Your task to perform on an android device: install app "DoorDash - Dasher" Image 0: 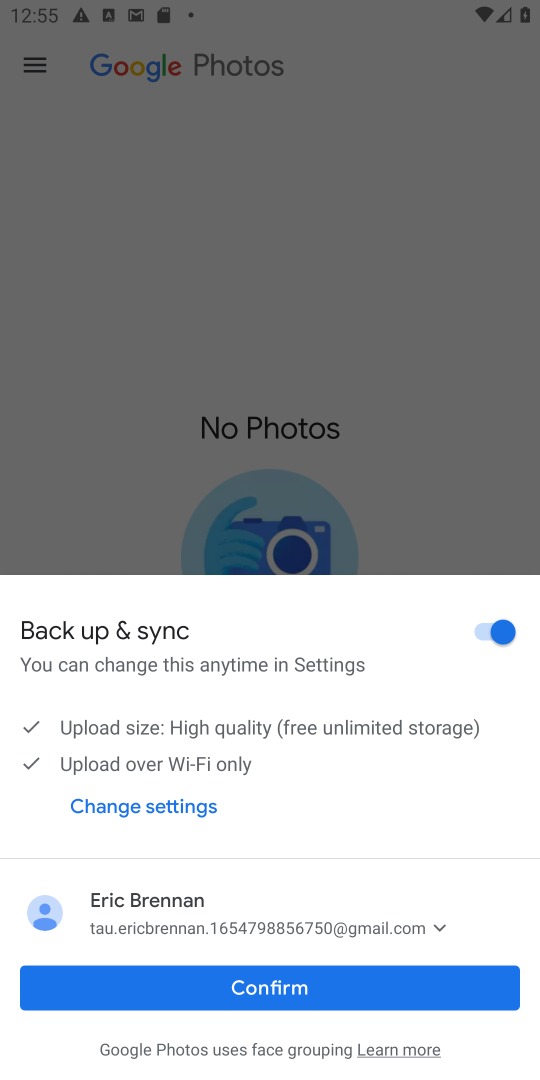
Step 0: press home button
Your task to perform on an android device: install app "DoorDash - Dasher" Image 1: 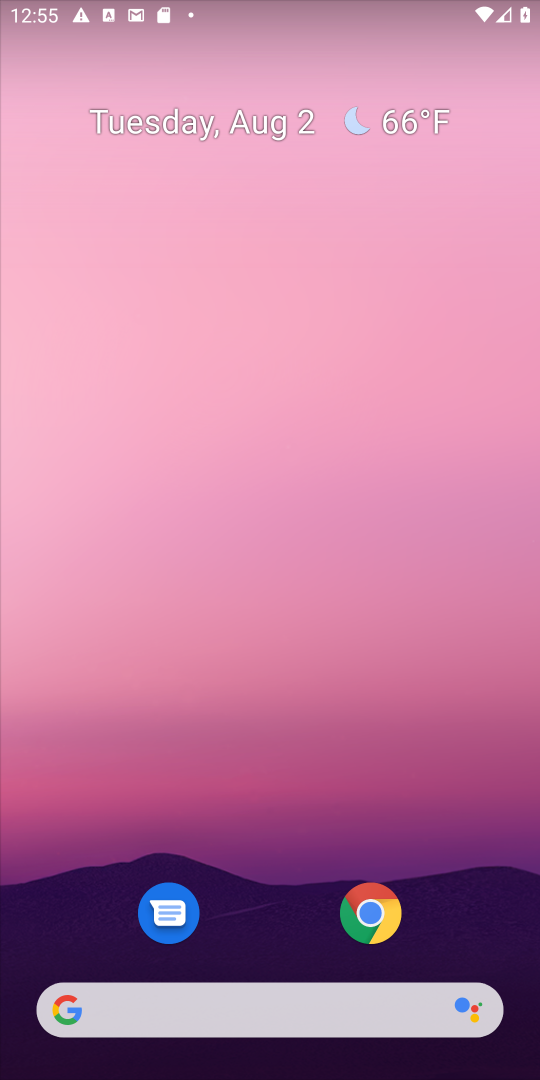
Step 1: drag from (510, 740) to (502, 452)
Your task to perform on an android device: install app "DoorDash - Dasher" Image 2: 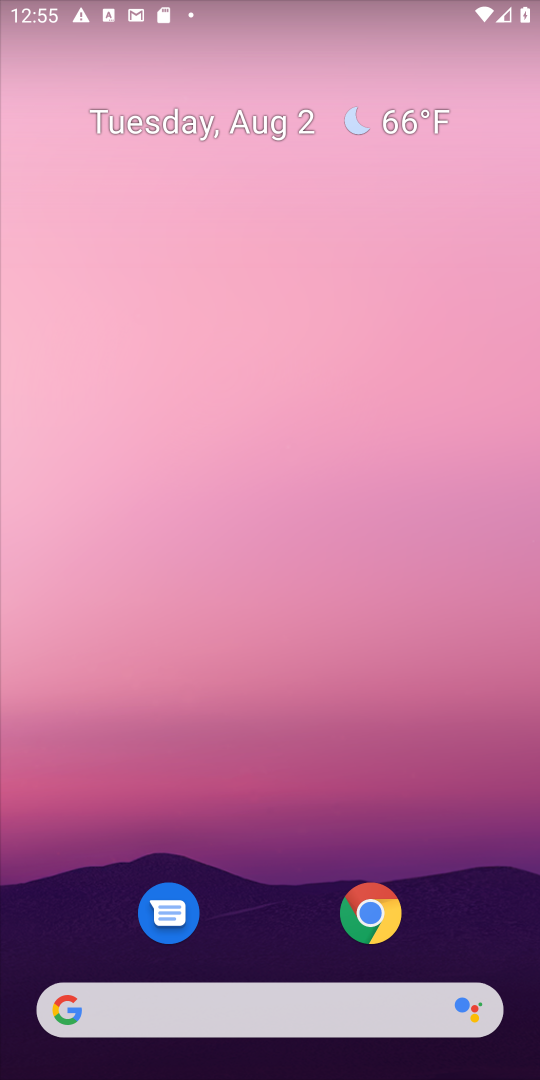
Step 2: drag from (523, 1029) to (429, 192)
Your task to perform on an android device: install app "DoorDash - Dasher" Image 3: 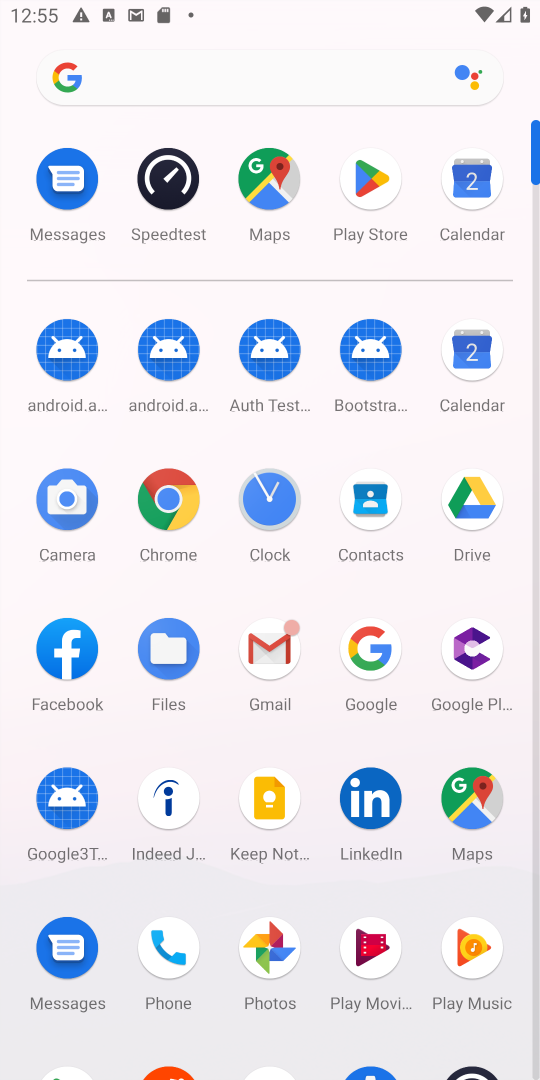
Step 3: click (376, 175)
Your task to perform on an android device: install app "DoorDash - Dasher" Image 4: 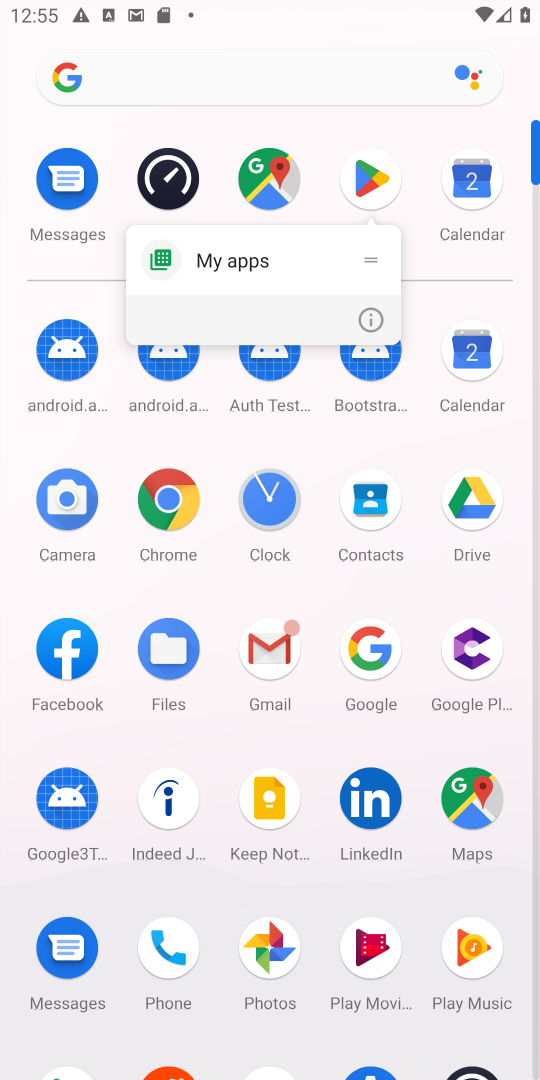
Step 4: click (368, 174)
Your task to perform on an android device: install app "DoorDash - Dasher" Image 5: 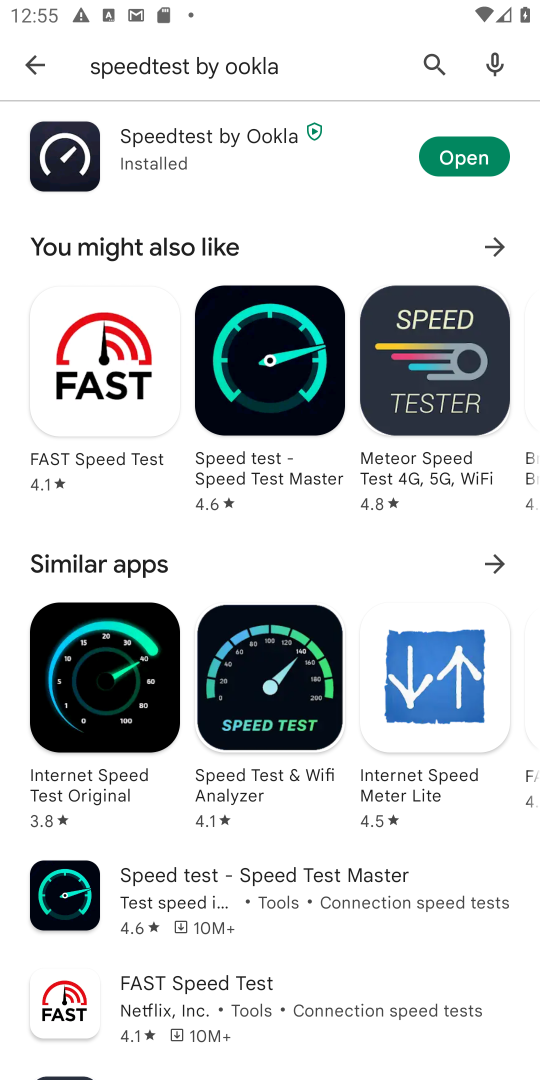
Step 5: click (443, 63)
Your task to perform on an android device: install app "DoorDash - Dasher" Image 6: 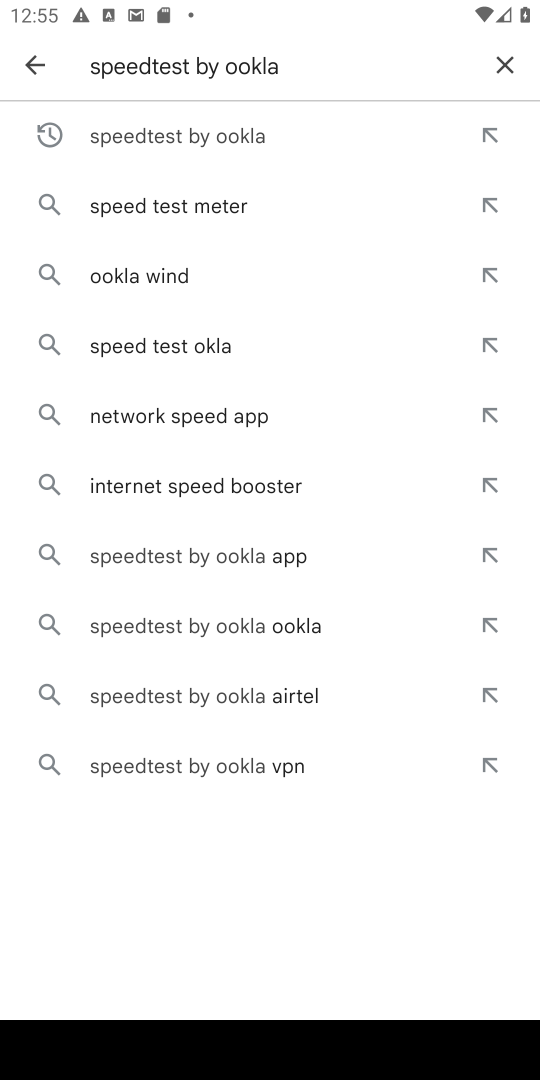
Step 6: click (506, 65)
Your task to perform on an android device: install app "DoorDash - Dasher" Image 7: 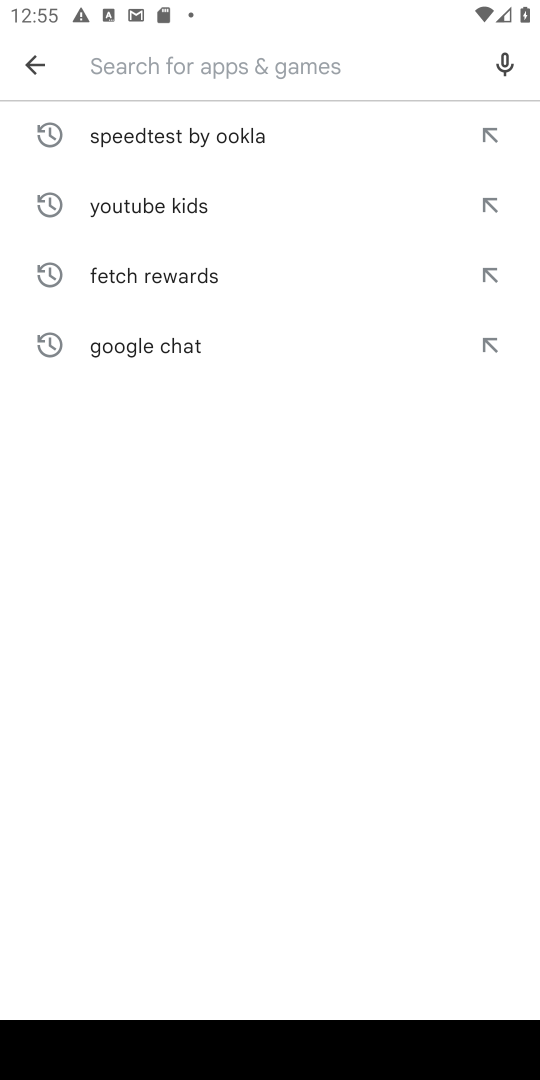
Step 7: type "DoorDash - Dasher"
Your task to perform on an android device: install app "DoorDash - Dasher" Image 8: 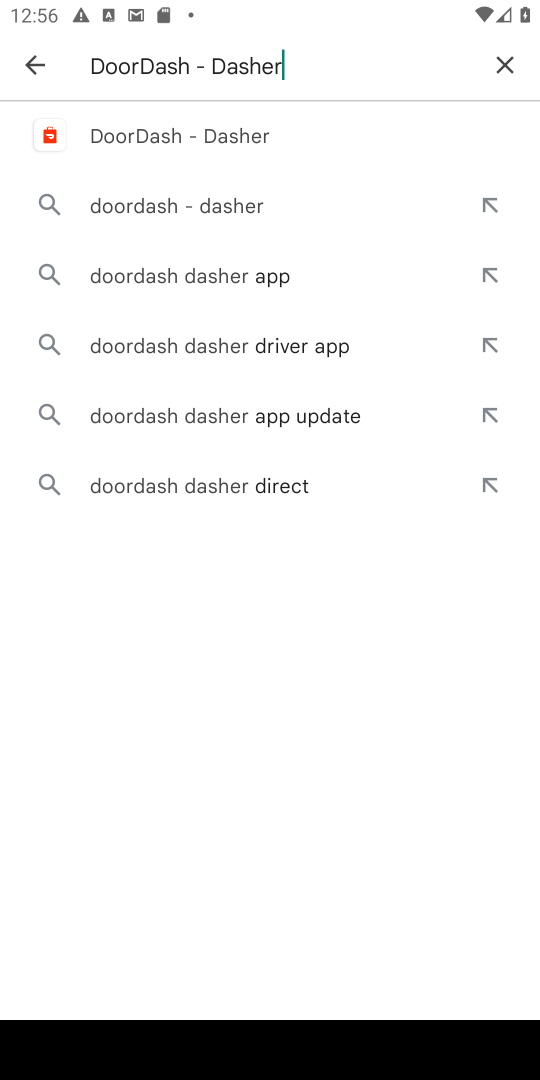
Step 8: click (205, 131)
Your task to perform on an android device: install app "DoorDash - Dasher" Image 9: 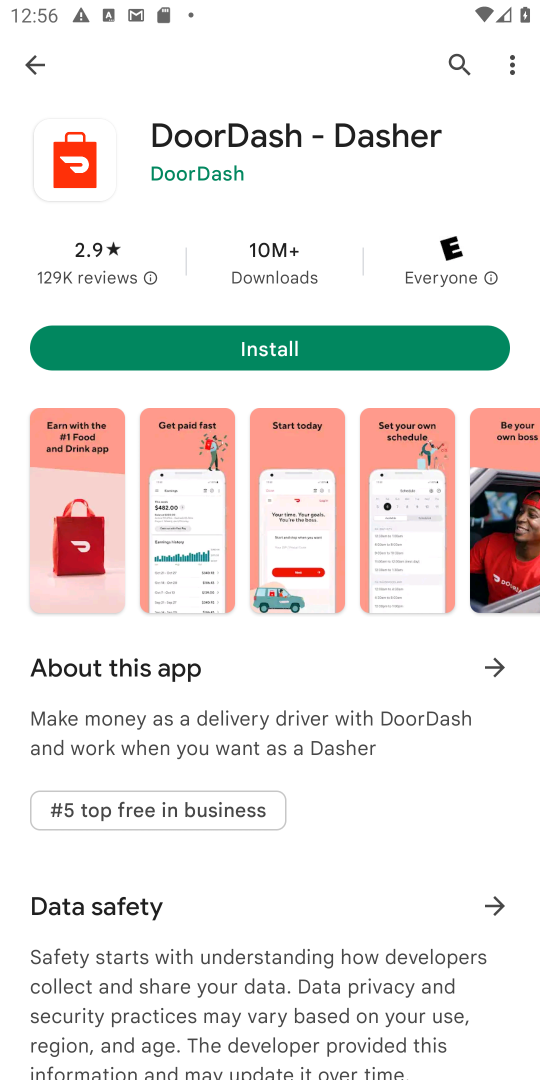
Step 9: click (251, 354)
Your task to perform on an android device: install app "DoorDash - Dasher" Image 10: 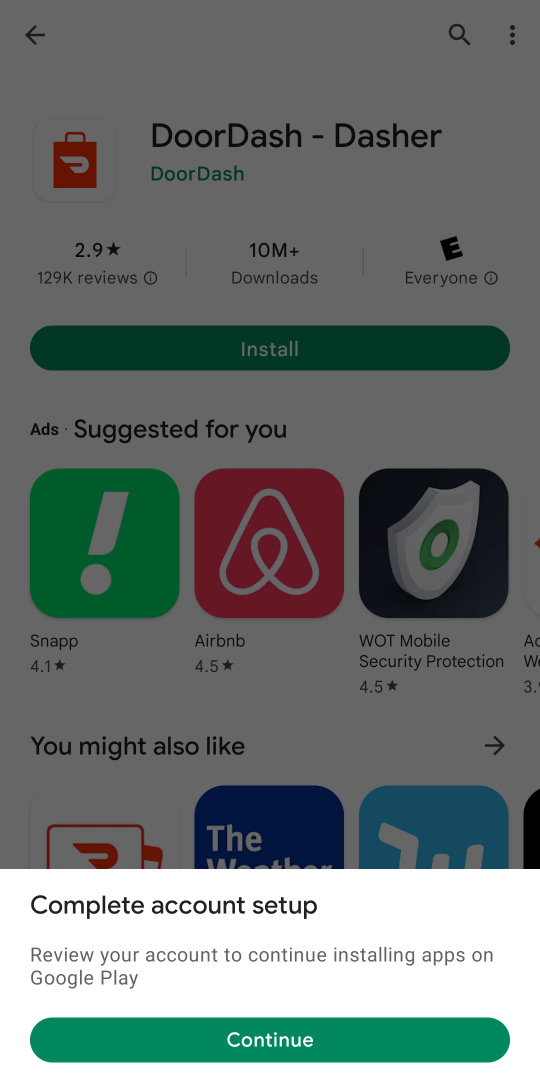
Step 10: click (369, 1026)
Your task to perform on an android device: install app "DoorDash - Dasher" Image 11: 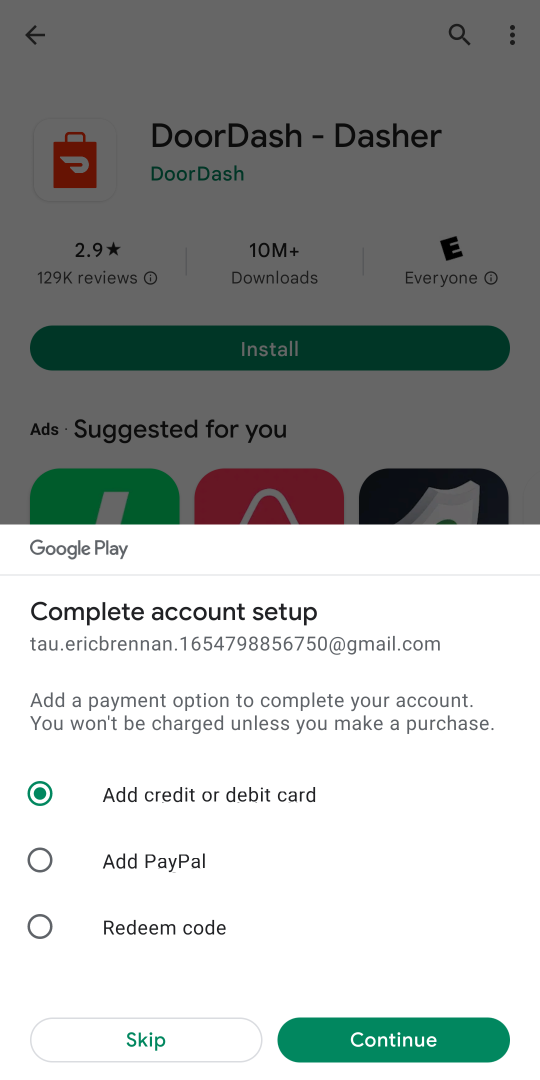
Step 11: task complete